Your task to perform on an android device: Go to CNN.com Image 0: 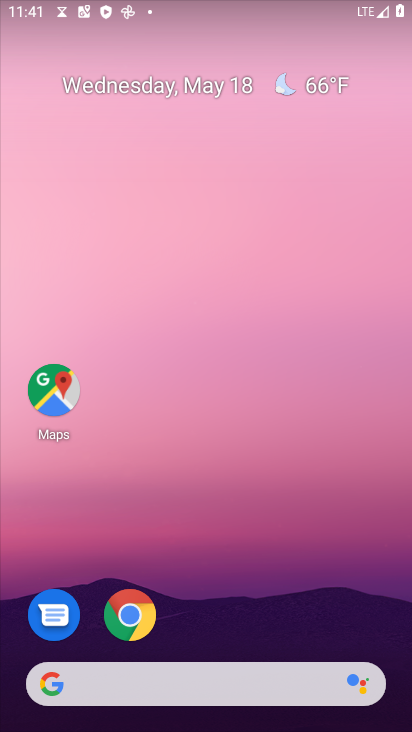
Step 0: drag from (234, 536) to (237, 14)
Your task to perform on an android device: Go to CNN.com Image 1: 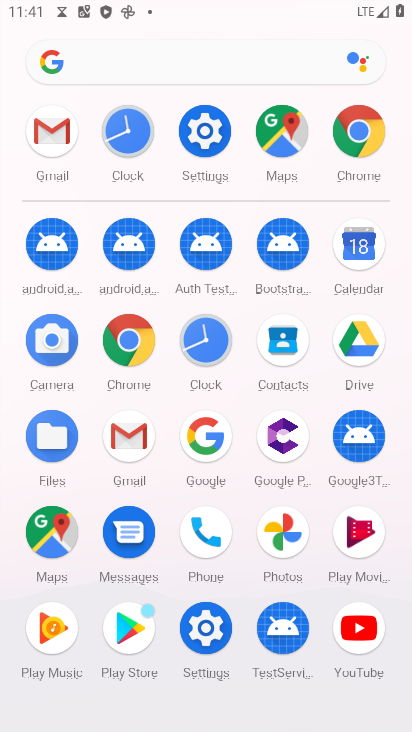
Step 1: click (126, 335)
Your task to perform on an android device: Go to CNN.com Image 2: 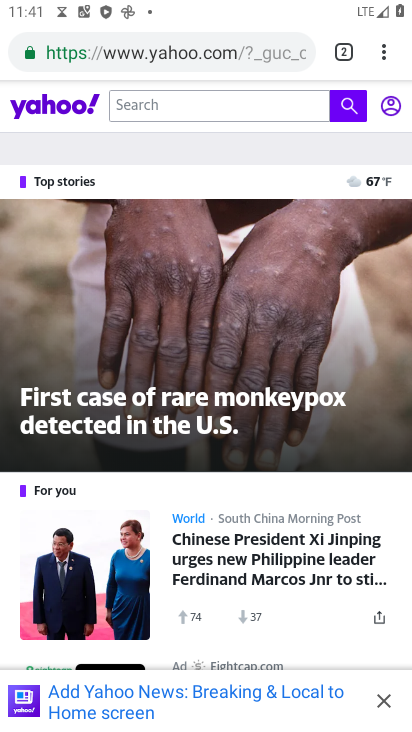
Step 2: click (229, 48)
Your task to perform on an android device: Go to CNN.com Image 3: 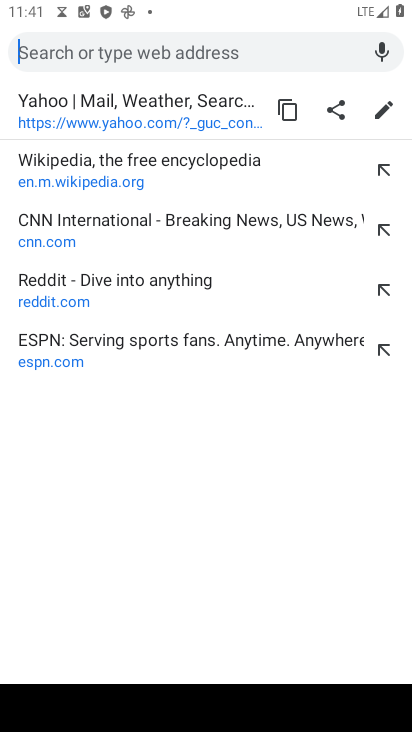
Step 3: click (123, 223)
Your task to perform on an android device: Go to CNN.com Image 4: 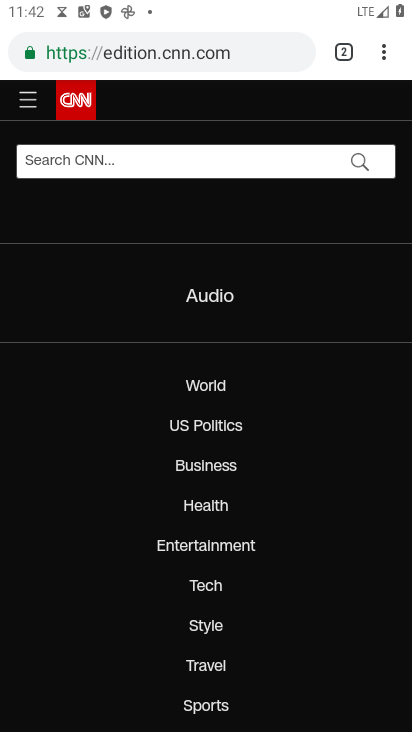
Step 4: task complete